Your task to perform on an android device: Find coffee shops on Maps Image 0: 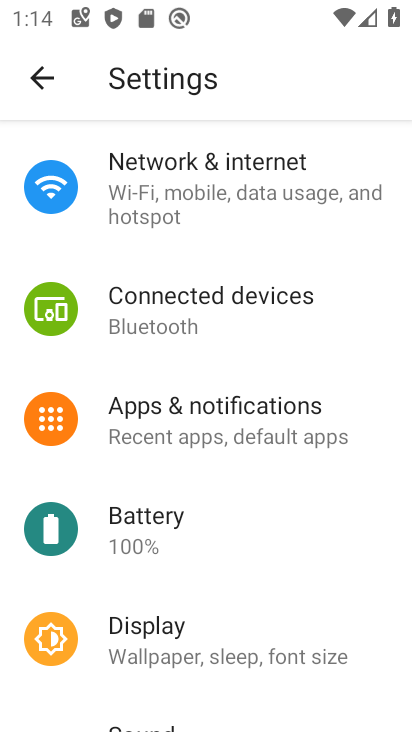
Step 0: press home button
Your task to perform on an android device: Find coffee shops on Maps Image 1: 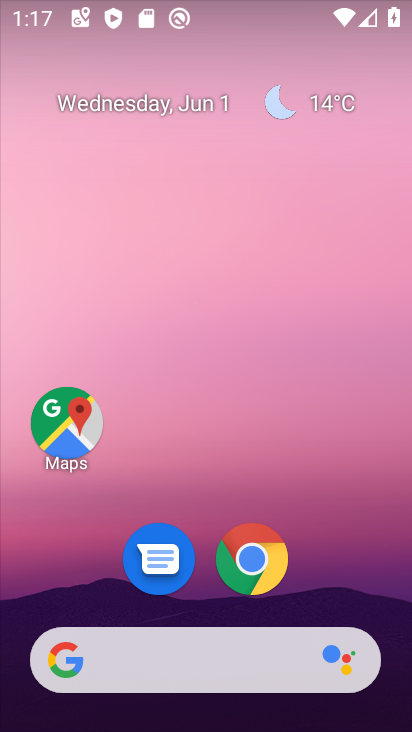
Step 1: click (68, 425)
Your task to perform on an android device: Find coffee shops on Maps Image 2: 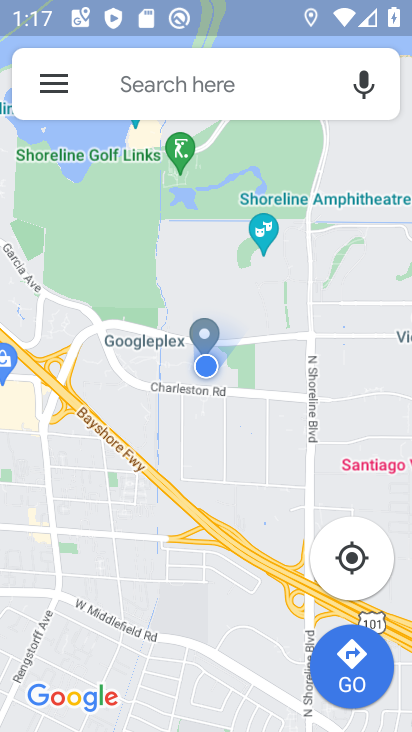
Step 2: click (228, 86)
Your task to perform on an android device: Find coffee shops on Maps Image 3: 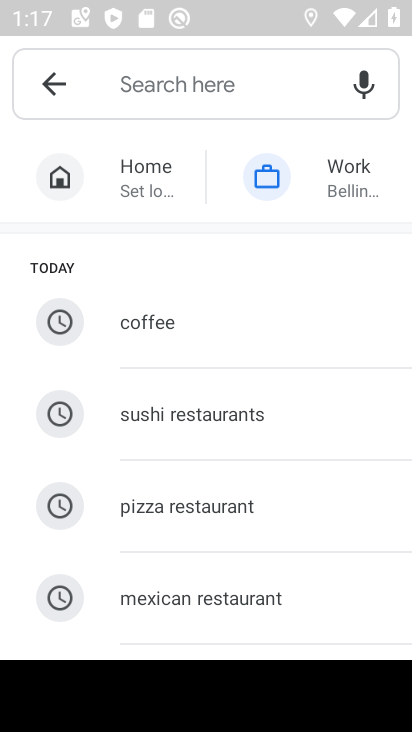
Step 3: type " coffee shops "
Your task to perform on an android device: Find coffee shops on Maps Image 4: 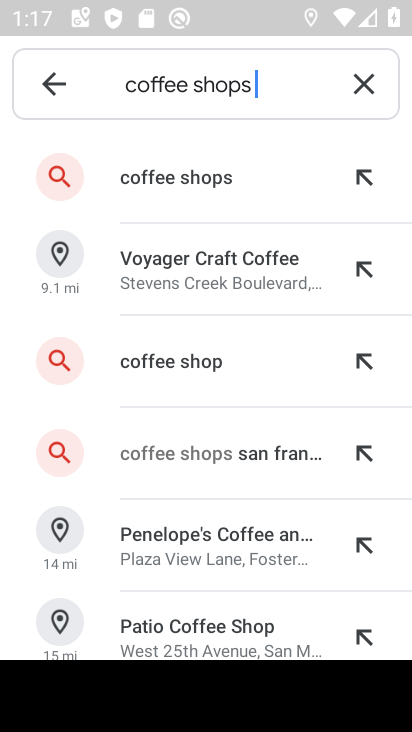
Step 4: click (213, 176)
Your task to perform on an android device: Find coffee shops on Maps Image 5: 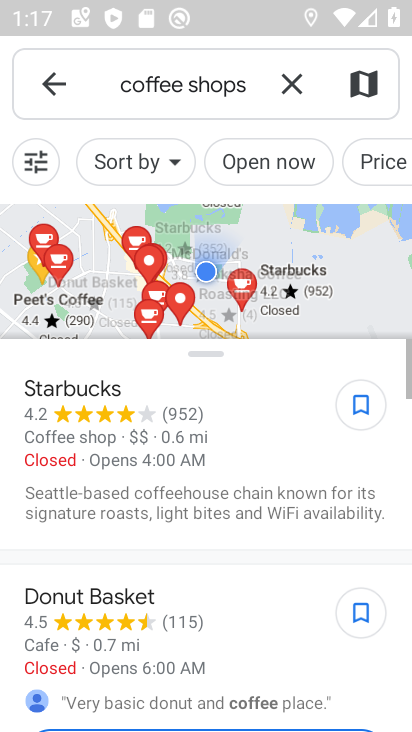
Step 5: task complete